Your task to perform on an android device: clear history in the chrome app Image 0: 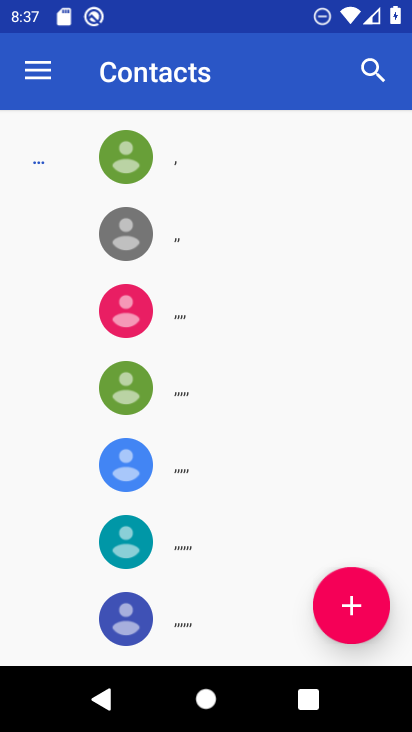
Step 0: press home button
Your task to perform on an android device: clear history in the chrome app Image 1: 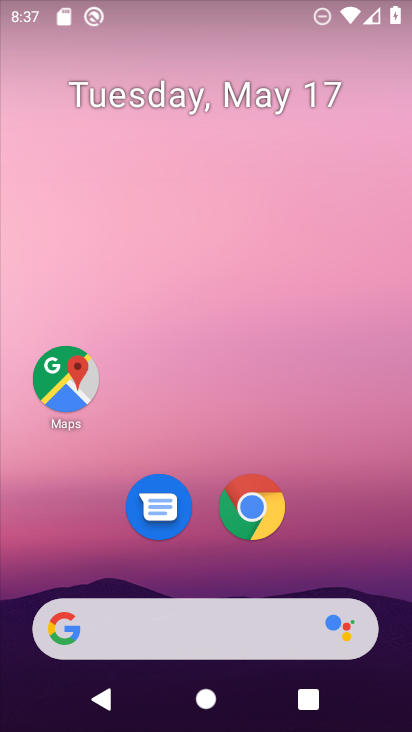
Step 1: click (259, 515)
Your task to perform on an android device: clear history in the chrome app Image 2: 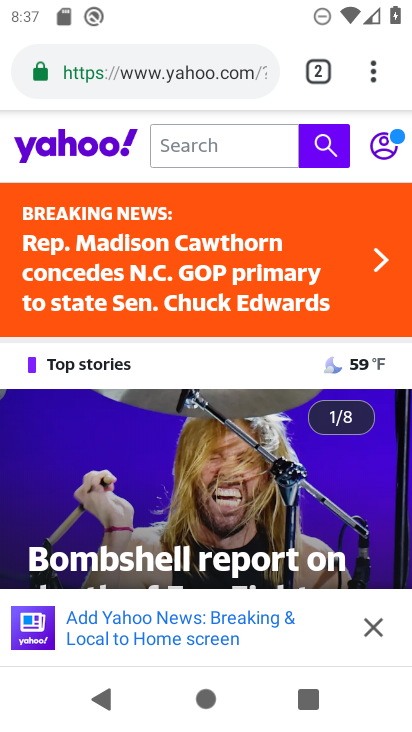
Step 2: click (374, 74)
Your task to perform on an android device: clear history in the chrome app Image 3: 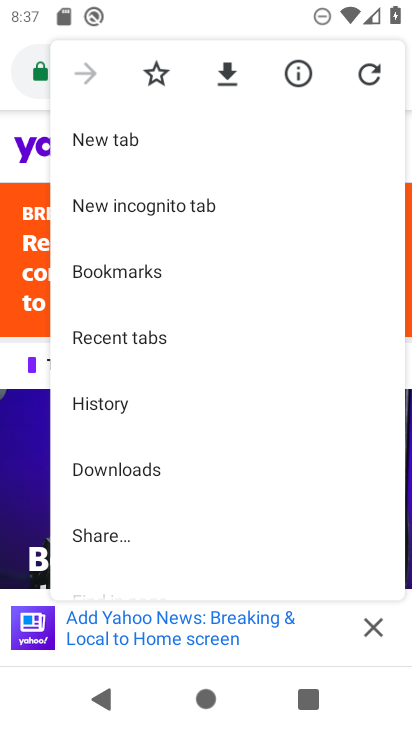
Step 3: click (96, 405)
Your task to perform on an android device: clear history in the chrome app Image 4: 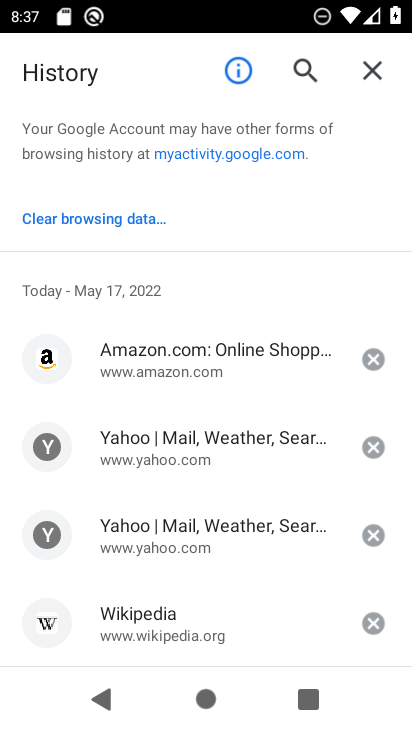
Step 4: click (94, 224)
Your task to perform on an android device: clear history in the chrome app Image 5: 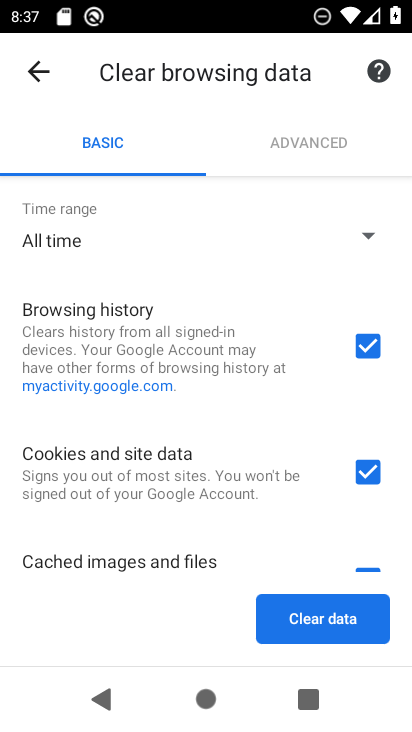
Step 5: click (367, 472)
Your task to perform on an android device: clear history in the chrome app Image 6: 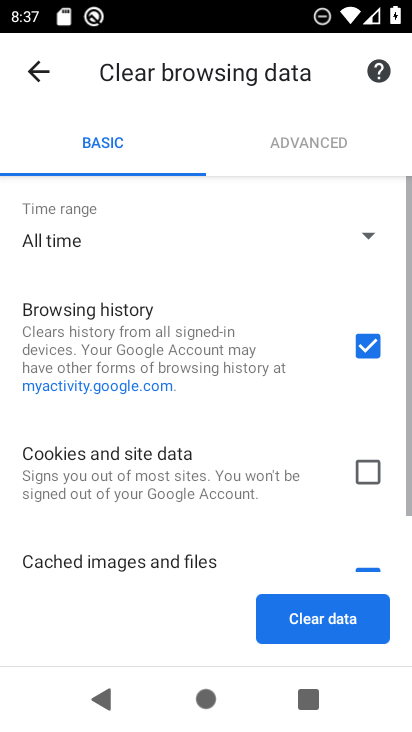
Step 6: drag from (158, 502) to (157, 226)
Your task to perform on an android device: clear history in the chrome app Image 7: 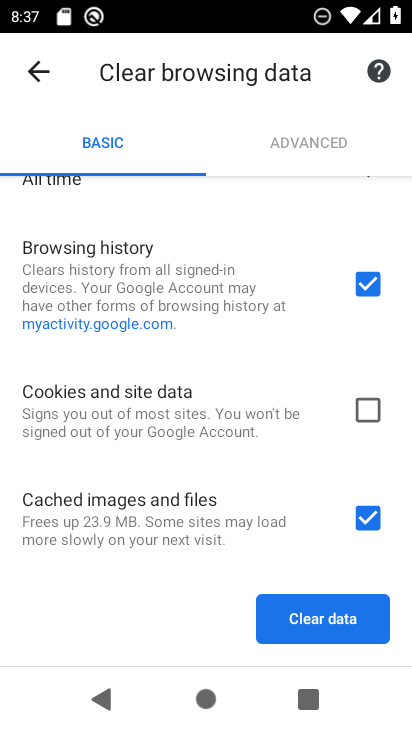
Step 7: click (371, 529)
Your task to perform on an android device: clear history in the chrome app Image 8: 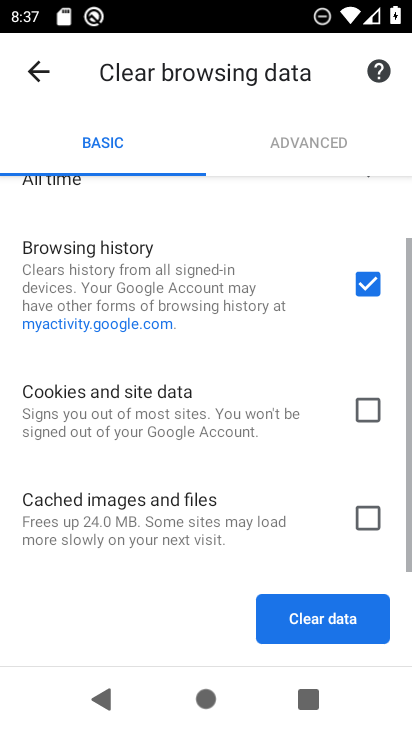
Step 8: click (337, 625)
Your task to perform on an android device: clear history in the chrome app Image 9: 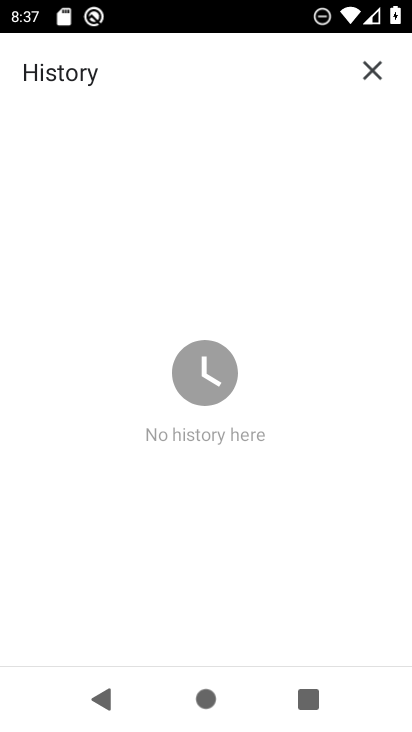
Step 9: task complete